Your task to perform on an android device: turn vacation reply on in the gmail app Image 0: 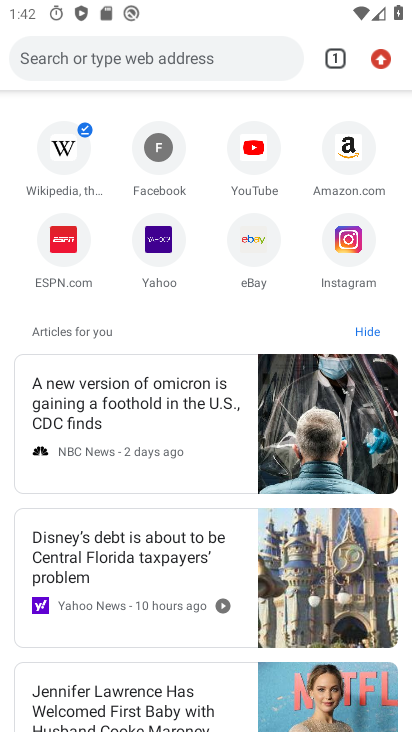
Step 0: press back button
Your task to perform on an android device: turn vacation reply on in the gmail app Image 1: 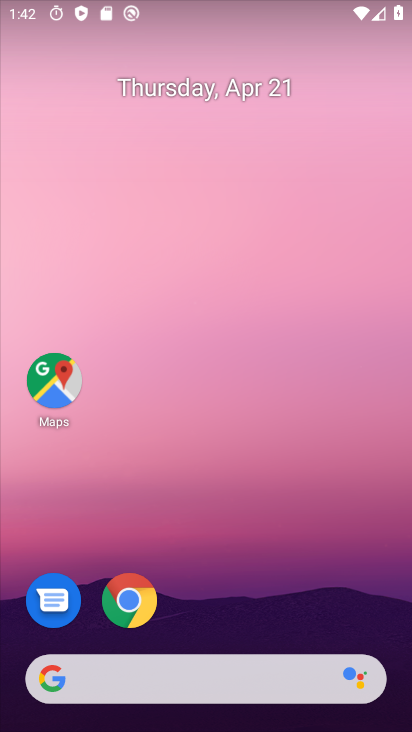
Step 1: drag from (178, 637) to (281, 115)
Your task to perform on an android device: turn vacation reply on in the gmail app Image 2: 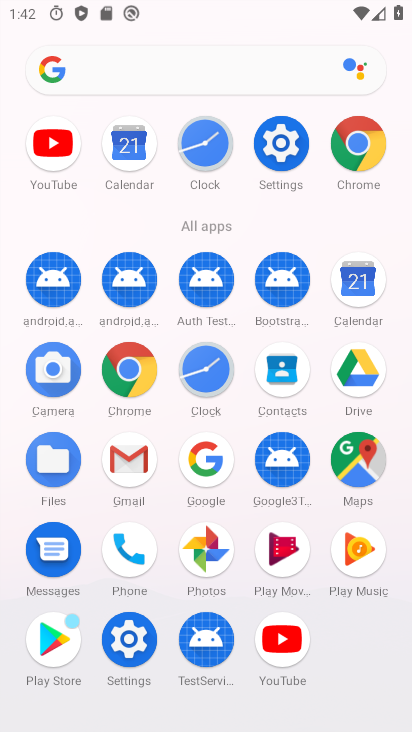
Step 2: click (129, 452)
Your task to perform on an android device: turn vacation reply on in the gmail app Image 3: 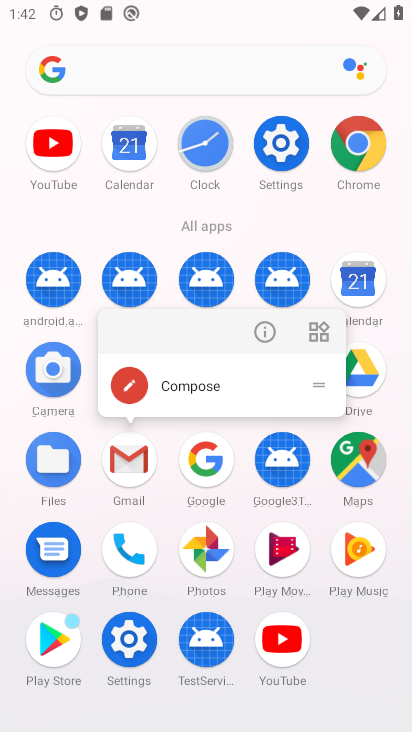
Step 3: click (126, 459)
Your task to perform on an android device: turn vacation reply on in the gmail app Image 4: 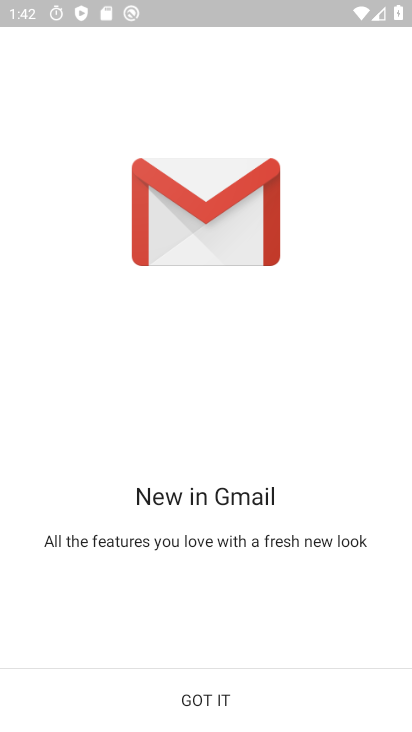
Step 4: click (204, 708)
Your task to perform on an android device: turn vacation reply on in the gmail app Image 5: 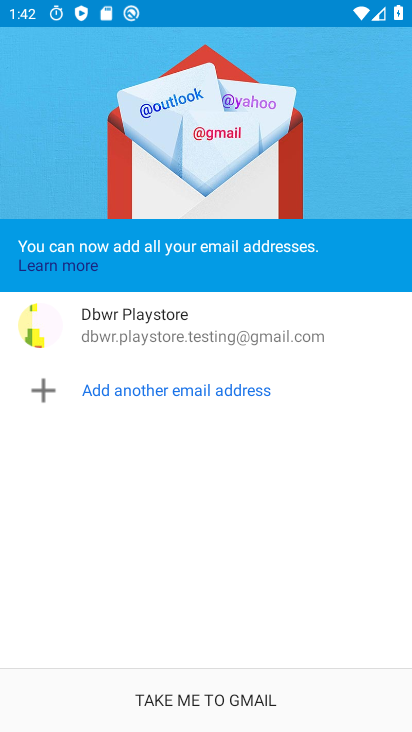
Step 5: click (188, 693)
Your task to perform on an android device: turn vacation reply on in the gmail app Image 6: 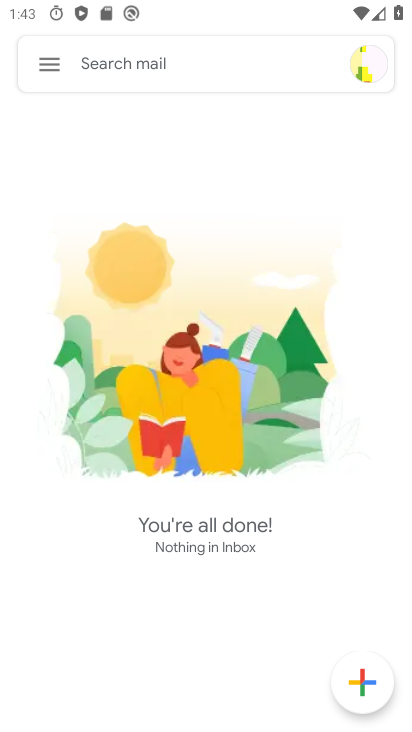
Step 6: click (49, 66)
Your task to perform on an android device: turn vacation reply on in the gmail app Image 7: 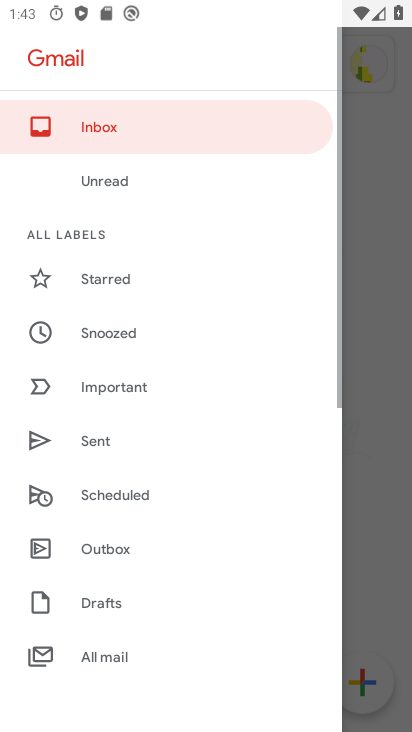
Step 7: drag from (126, 650) to (242, 156)
Your task to perform on an android device: turn vacation reply on in the gmail app Image 8: 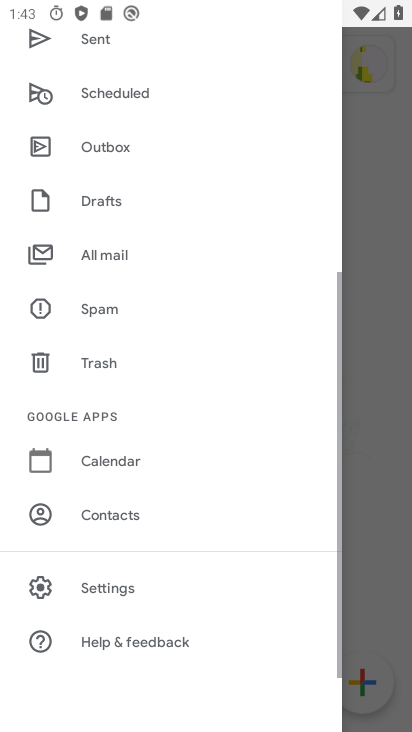
Step 8: click (98, 584)
Your task to perform on an android device: turn vacation reply on in the gmail app Image 9: 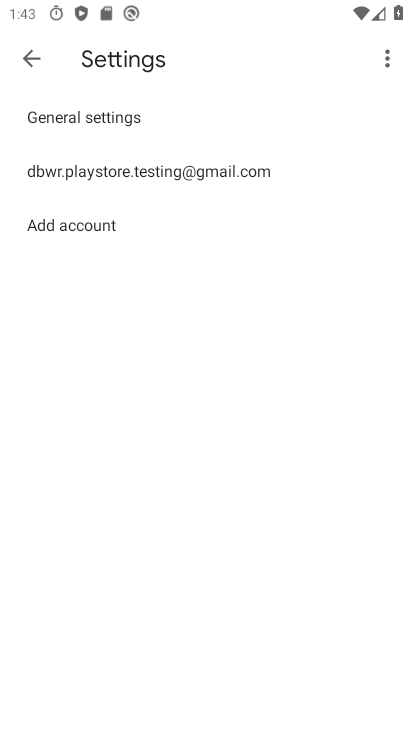
Step 9: click (118, 147)
Your task to perform on an android device: turn vacation reply on in the gmail app Image 10: 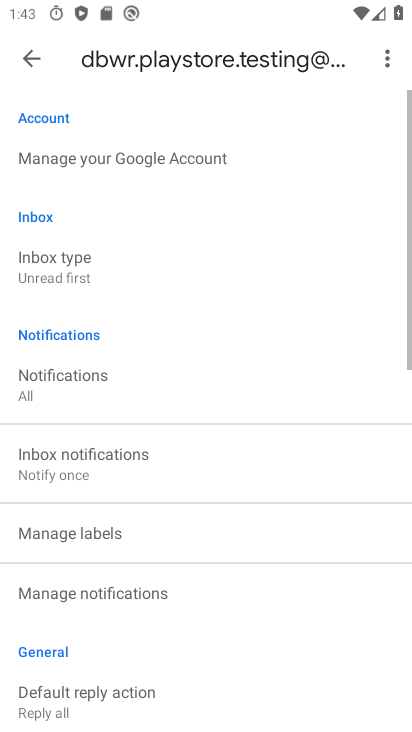
Step 10: drag from (125, 684) to (242, 243)
Your task to perform on an android device: turn vacation reply on in the gmail app Image 11: 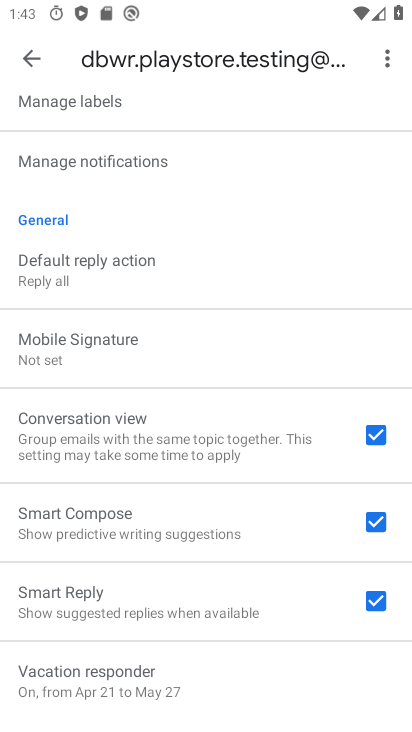
Step 11: click (149, 701)
Your task to perform on an android device: turn vacation reply on in the gmail app Image 12: 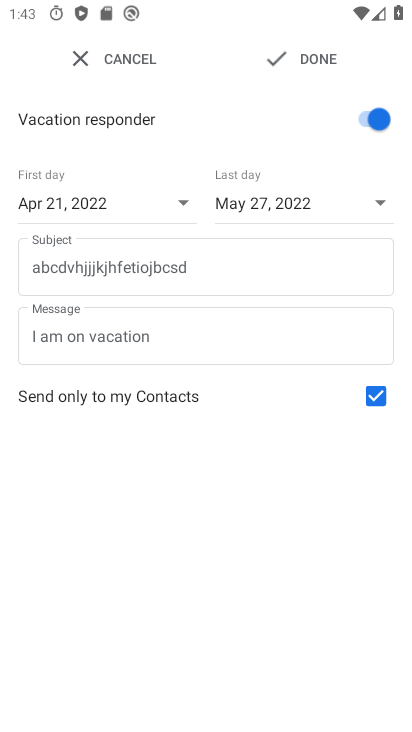
Step 12: task complete